Your task to perform on an android device: manage bookmarks in the chrome app Image 0: 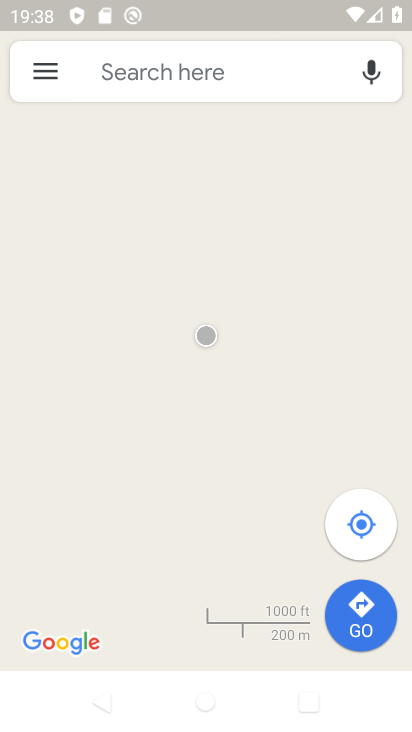
Step 0: press home button
Your task to perform on an android device: manage bookmarks in the chrome app Image 1: 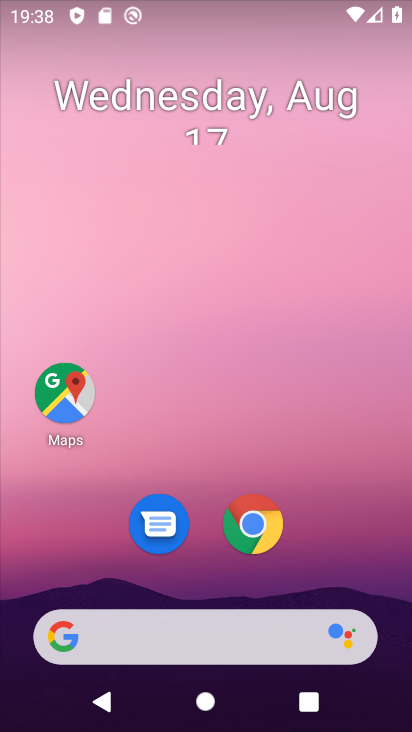
Step 1: click (254, 524)
Your task to perform on an android device: manage bookmarks in the chrome app Image 2: 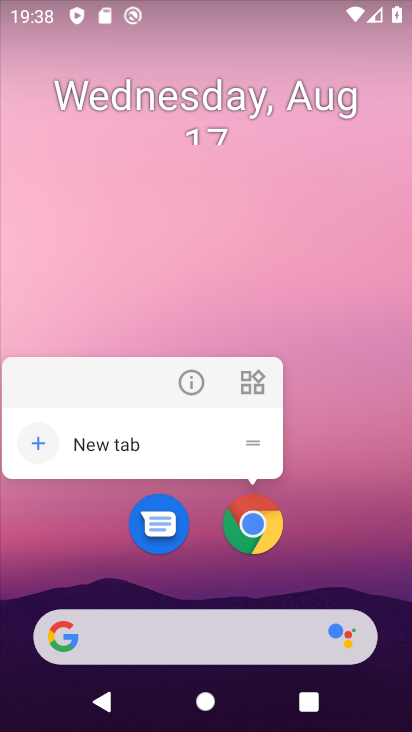
Step 2: click (254, 524)
Your task to perform on an android device: manage bookmarks in the chrome app Image 3: 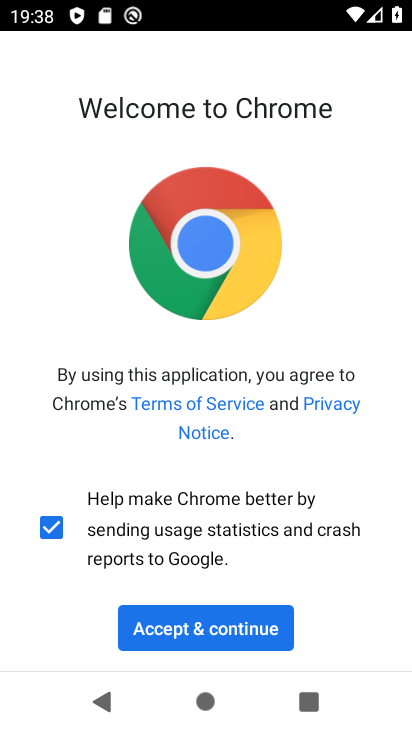
Step 3: click (259, 619)
Your task to perform on an android device: manage bookmarks in the chrome app Image 4: 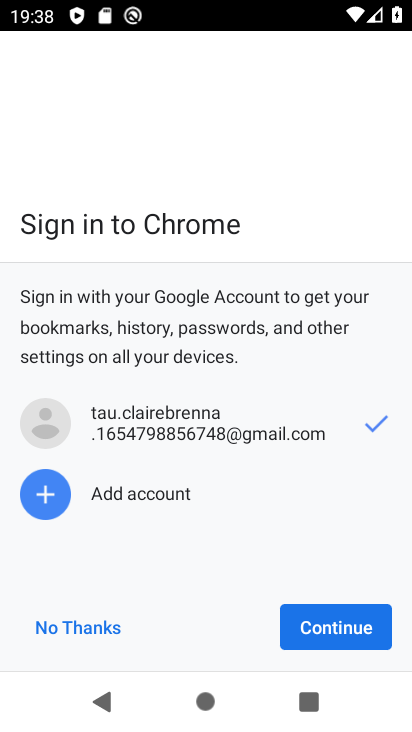
Step 4: click (313, 629)
Your task to perform on an android device: manage bookmarks in the chrome app Image 5: 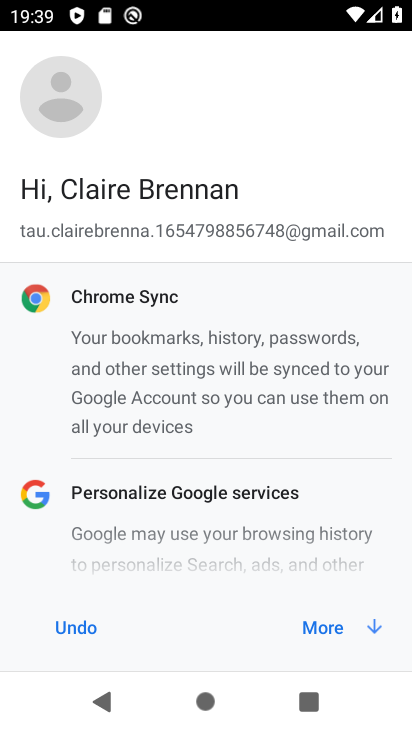
Step 5: click (319, 629)
Your task to perform on an android device: manage bookmarks in the chrome app Image 6: 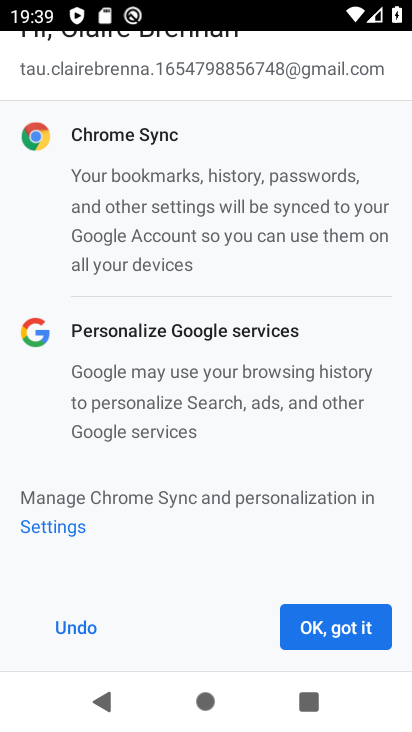
Step 6: click (321, 622)
Your task to perform on an android device: manage bookmarks in the chrome app Image 7: 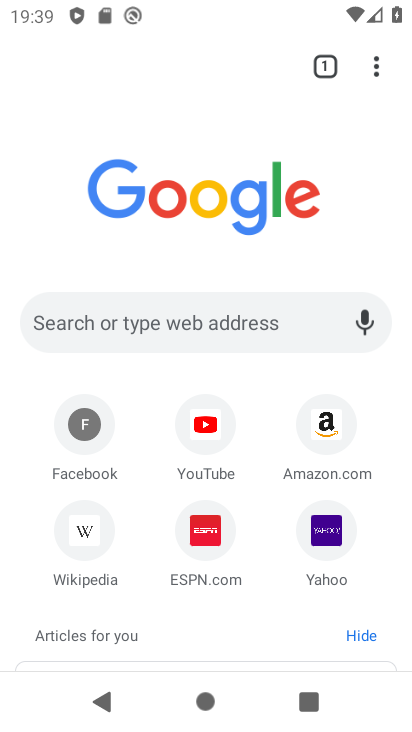
Step 7: click (375, 68)
Your task to perform on an android device: manage bookmarks in the chrome app Image 8: 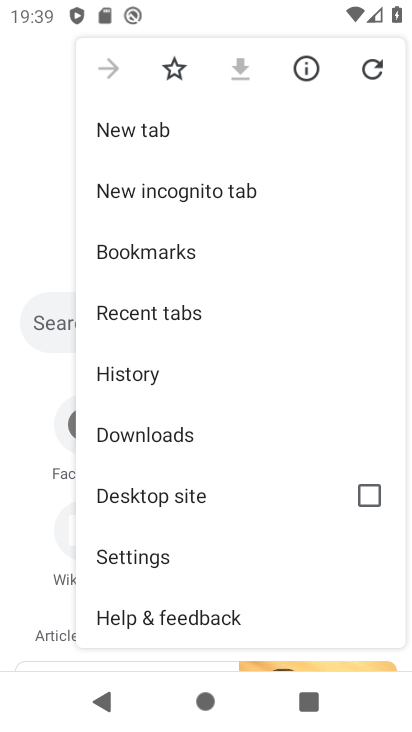
Step 8: click (178, 251)
Your task to perform on an android device: manage bookmarks in the chrome app Image 9: 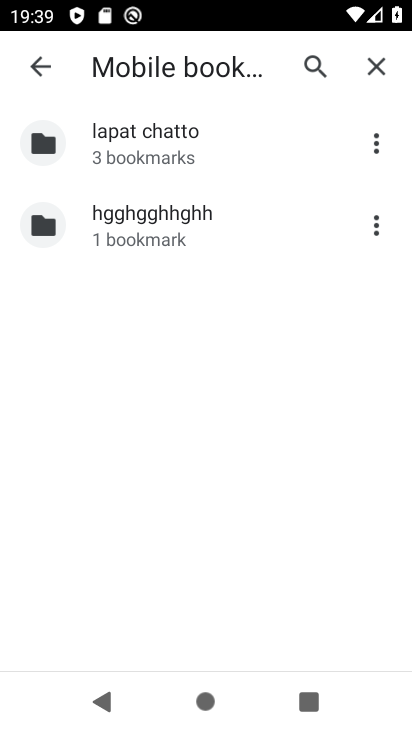
Step 9: click (195, 219)
Your task to perform on an android device: manage bookmarks in the chrome app Image 10: 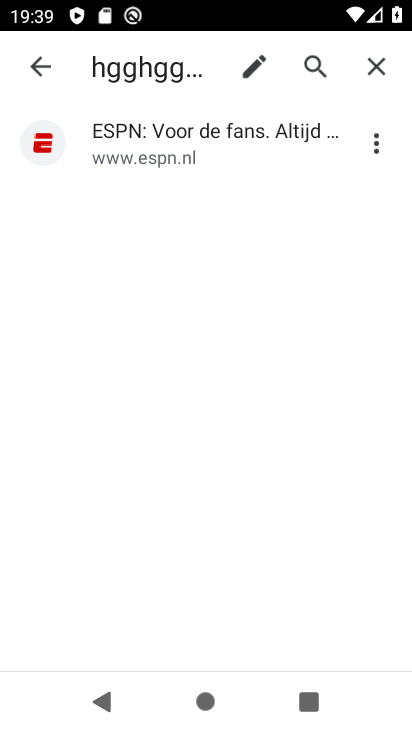
Step 10: click (373, 141)
Your task to perform on an android device: manage bookmarks in the chrome app Image 11: 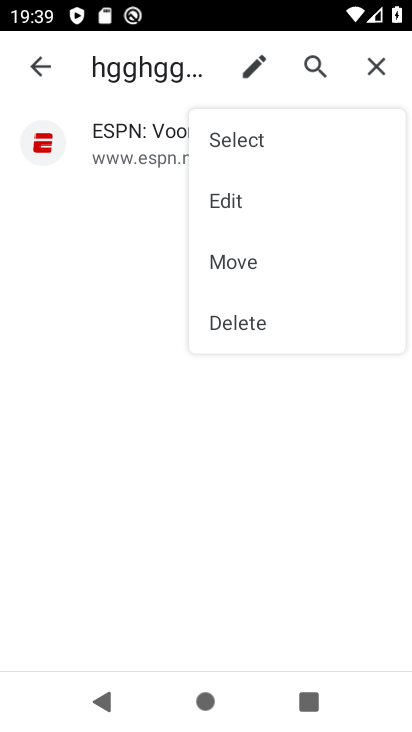
Step 11: click (290, 201)
Your task to perform on an android device: manage bookmarks in the chrome app Image 12: 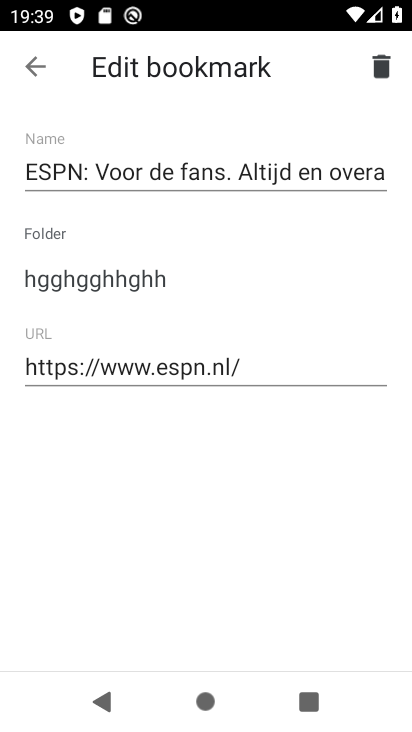
Step 12: task complete